Your task to perform on an android device: check out phone information Image 0: 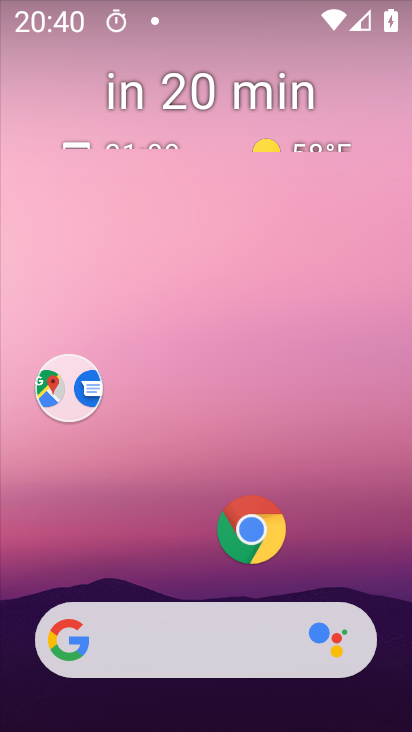
Step 0: click (209, 356)
Your task to perform on an android device: check out phone information Image 1: 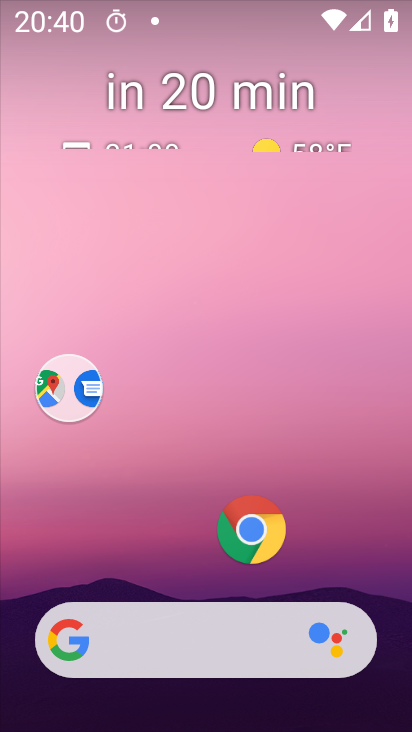
Step 1: drag from (166, 565) to (158, 35)
Your task to perform on an android device: check out phone information Image 2: 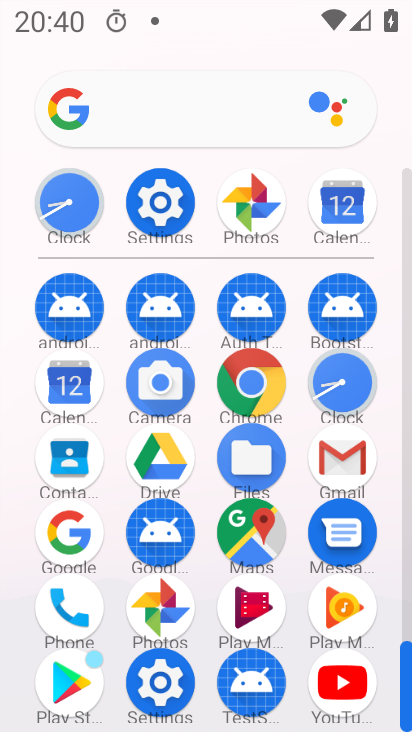
Step 2: click (163, 198)
Your task to perform on an android device: check out phone information Image 3: 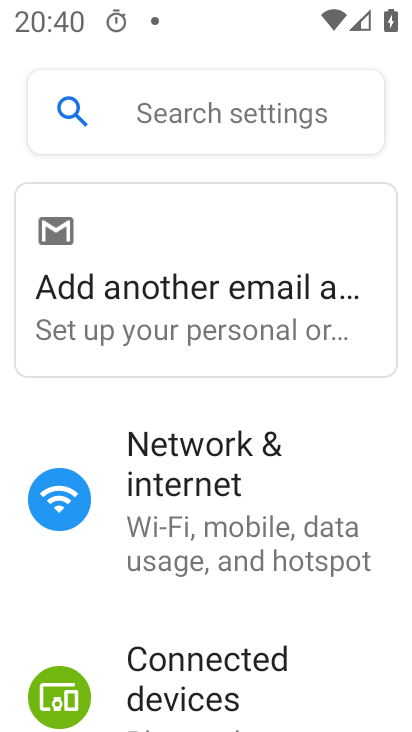
Step 3: drag from (274, 607) to (263, 9)
Your task to perform on an android device: check out phone information Image 4: 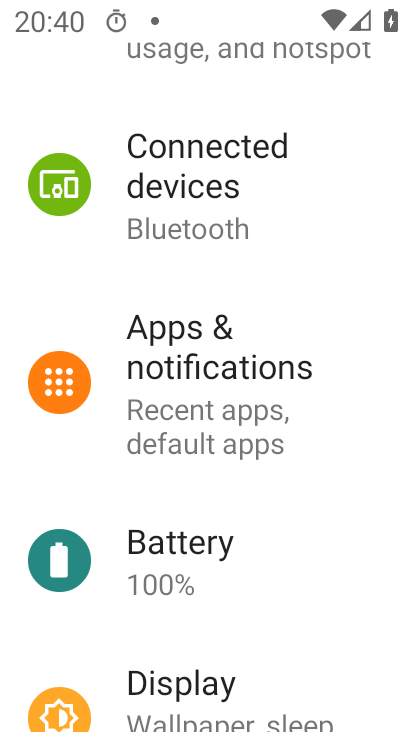
Step 4: drag from (228, 563) to (208, 9)
Your task to perform on an android device: check out phone information Image 5: 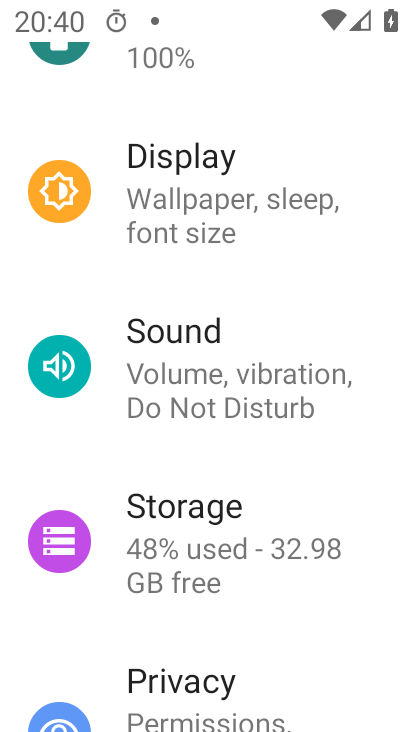
Step 5: drag from (184, 612) to (203, 51)
Your task to perform on an android device: check out phone information Image 6: 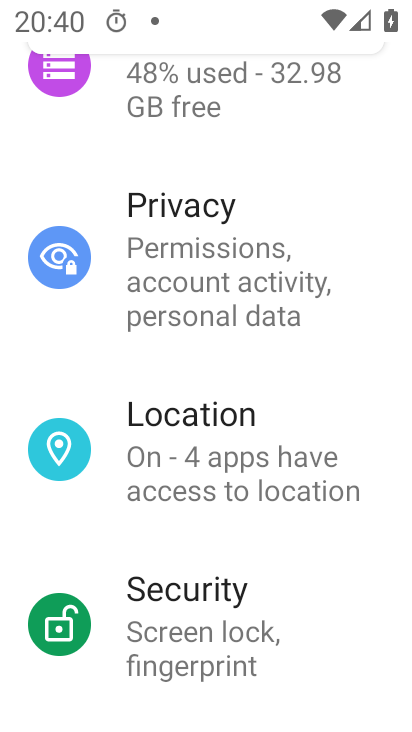
Step 6: drag from (224, 661) to (235, 31)
Your task to perform on an android device: check out phone information Image 7: 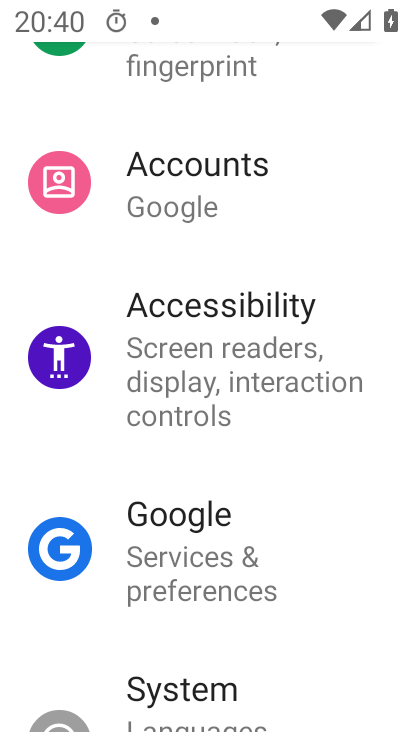
Step 7: drag from (219, 664) to (190, 129)
Your task to perform on an android device: check out phone information Image 8: 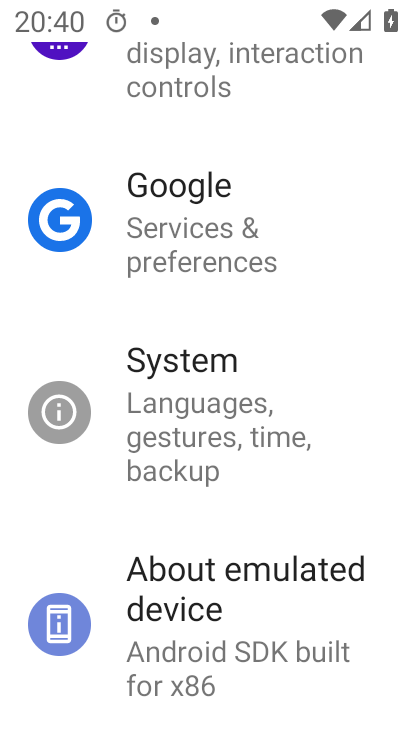
Step 8: click (207, 655)
Your task to perform on an android device: check out phone information Image 9: 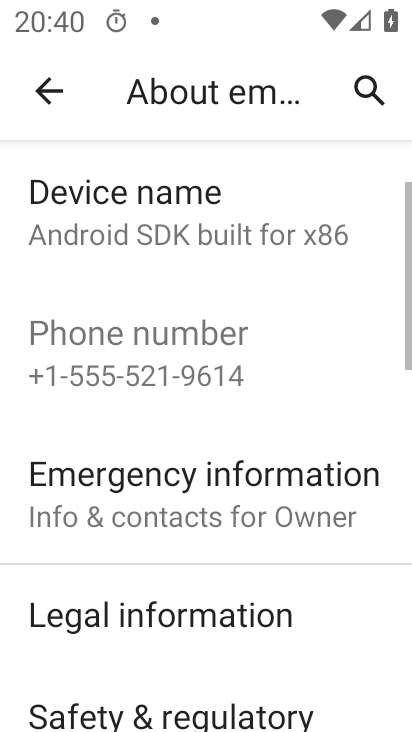
Step 9: task complete